Your task to perform on an android device: Open internet settings Image 0: 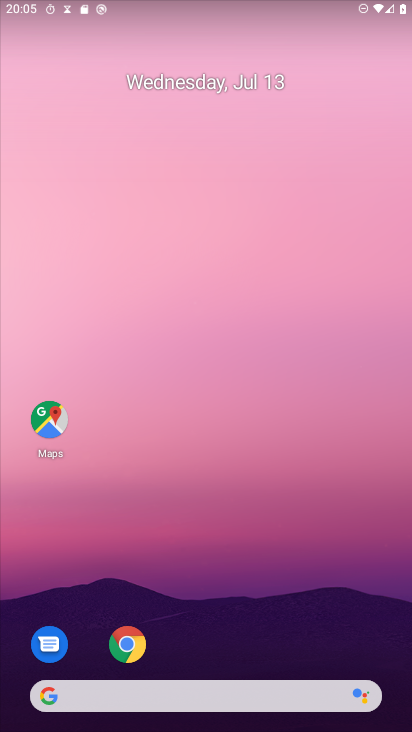
Step 0: drag from (215, 638) to (247, 53)
Your task to perform on an android device: Open internet settings Image 1: 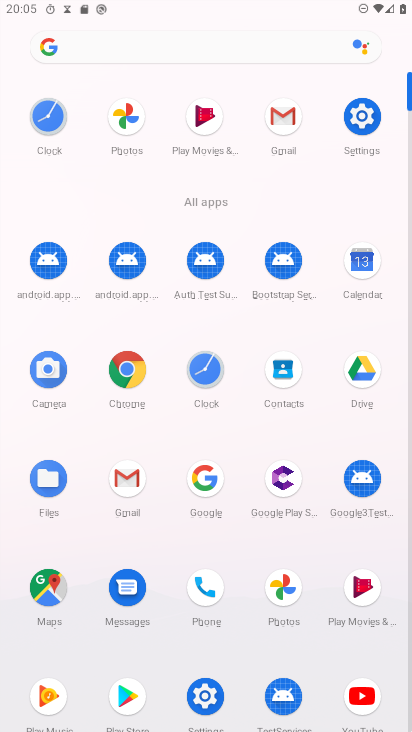
Step 1: click (359, 111)
Your task to perform on an android device: Open internet settings Image 2: 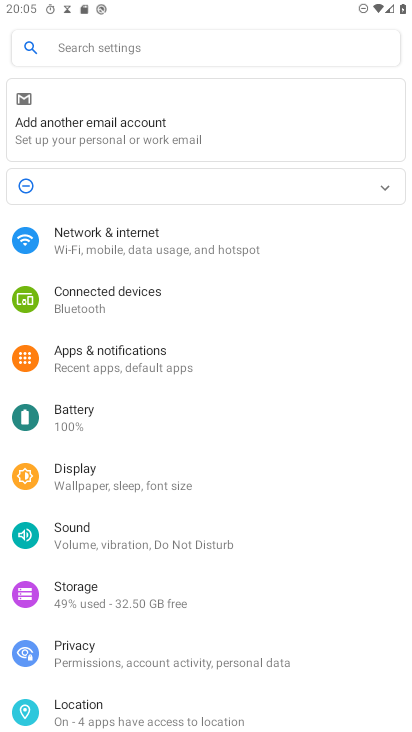
Step 2: click (139, 239)
Your task to perform on an android device: Open internet settings Image 3: 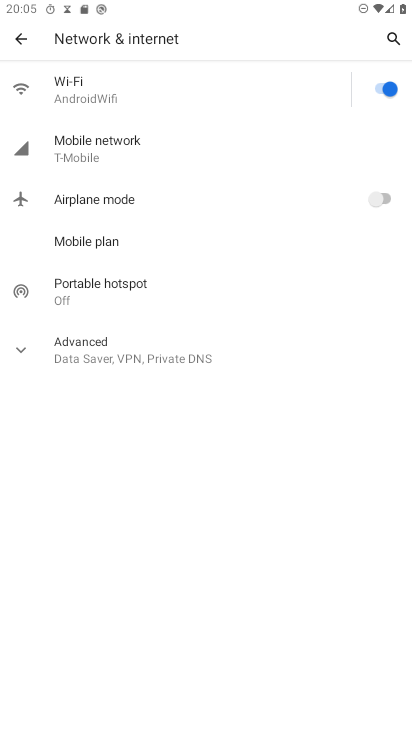
Step 3: click (114, 152)
Your task to perform on an android device: Open internet settings Image 4: 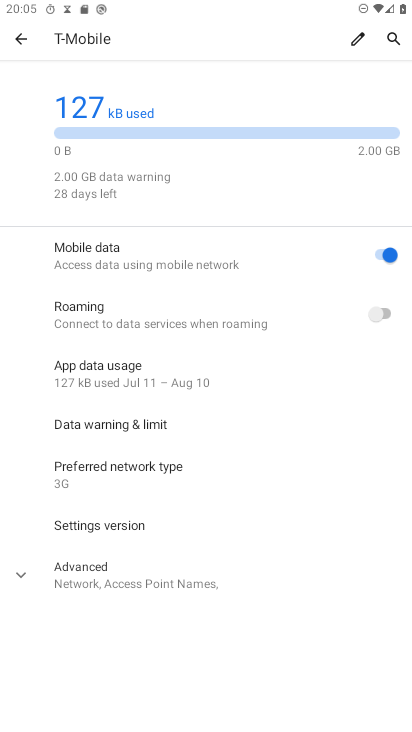
Step 4: task complete